Your task to perform on an android device: check google app version Image 0: 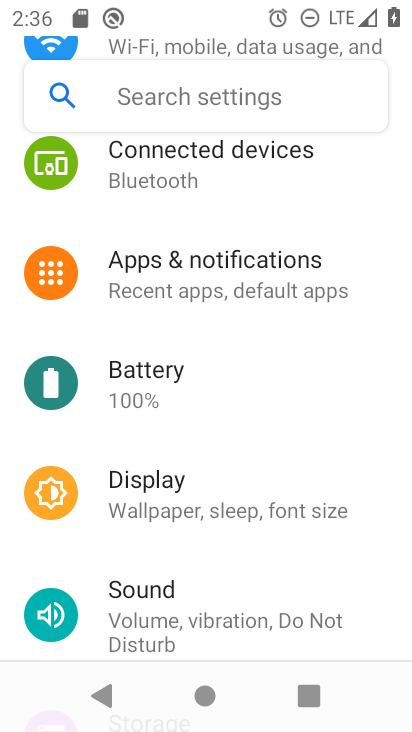
Step 0: press home button
Your task to perform on an android device: check google app version Image 1: 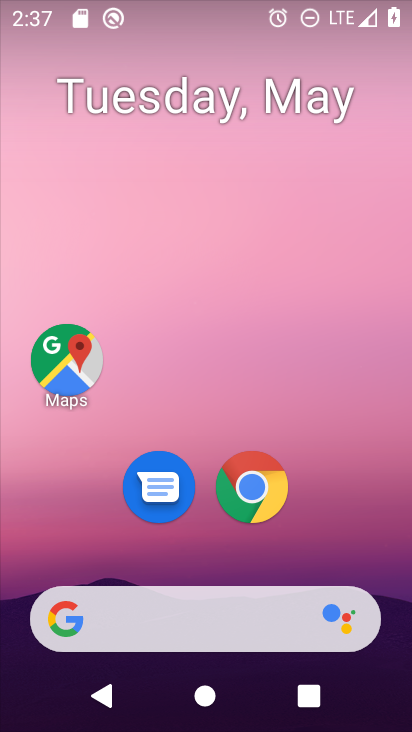
Step 1: drag from (81, 441) to (355, 55)
Your task to perform on an android device: check google app version Image 2: 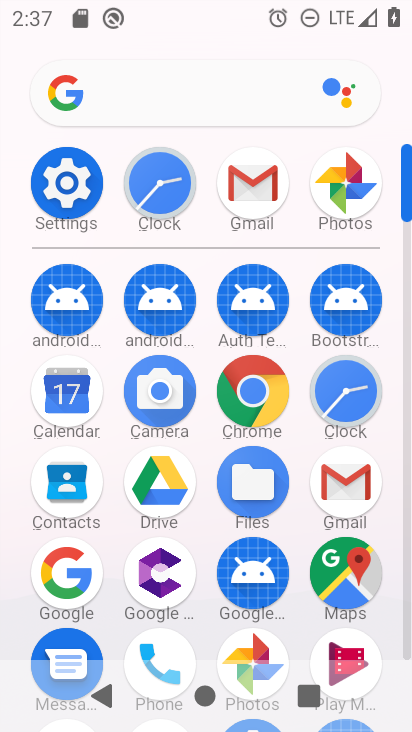
Step 2: click (257, 598)
Your task to perform on an android device: check google app version Image 3: 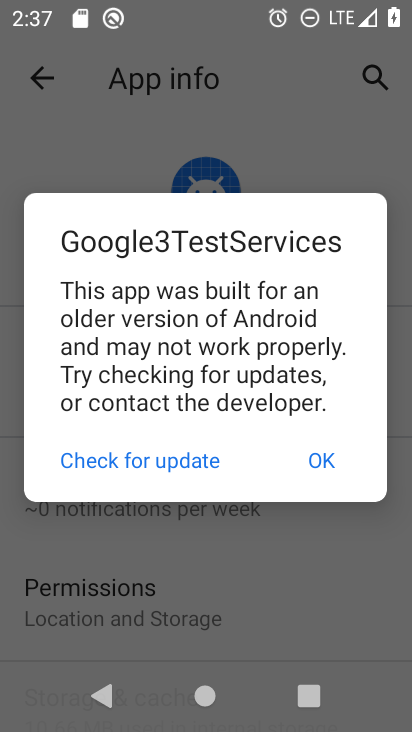
Step 3: click (304, 453)
Your task to perform on an android device: check google app version Image 4: 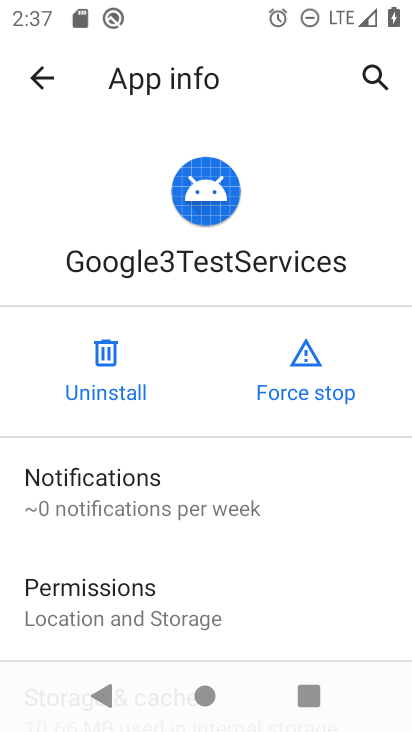
Step 4: drag from (159, 587) to (400, 44)
Your task to perform on an android device: check google app version Image 5: 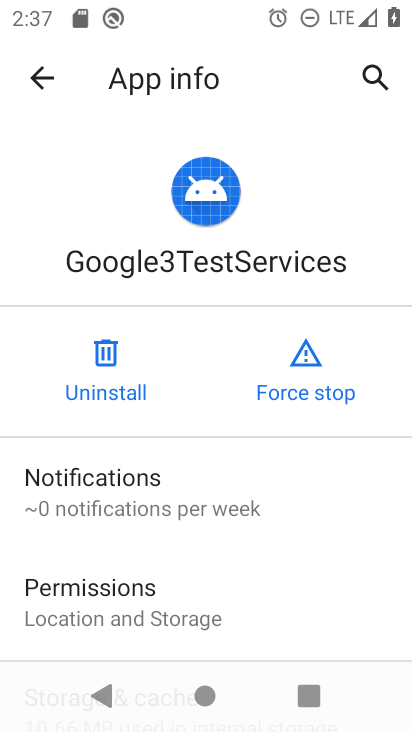
Step 5: drag from (108, 611) to (279, 202)
Your task to perform on an android device: check google app version Image 6: 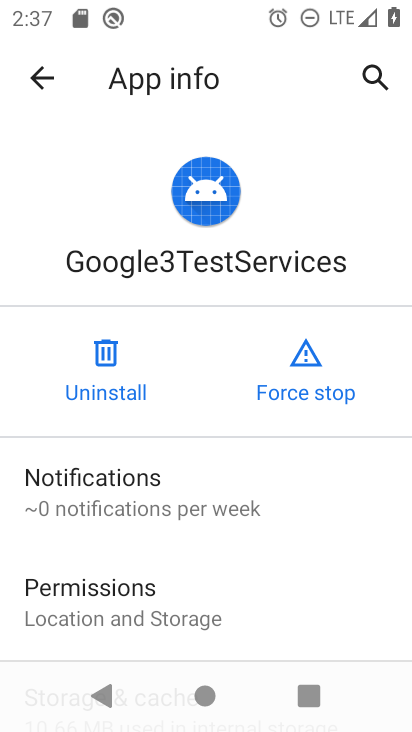
Step 6: drag from (242, 546) to (385, 41)
Your task to perform on an android device: check google app version Image 7: 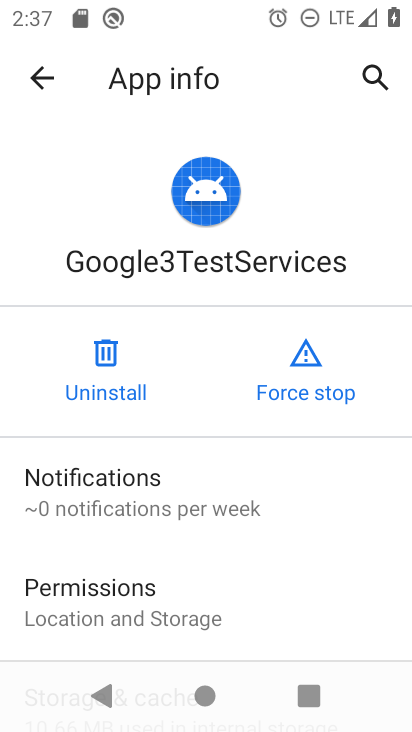
Step 7: drag from (47, 622) to (316, 104)
Your task to perform on an android device: check google app version Image 8: 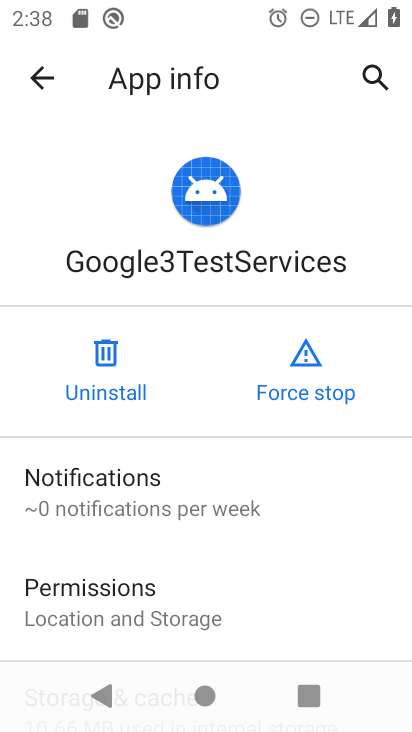
Step 8: drag from (8, 641) to (275, 31)
Your task to perform on an android device: check google app version Image 9: 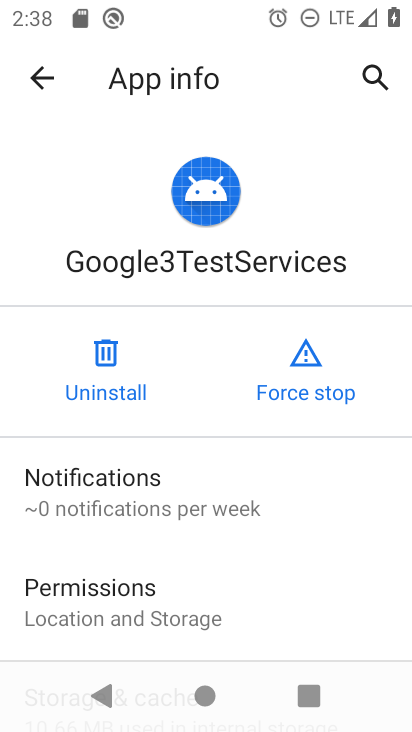
Step 9: drag from (21, 553) to (264, 120)
Your task to perform on an android device: check google app version Image 10: 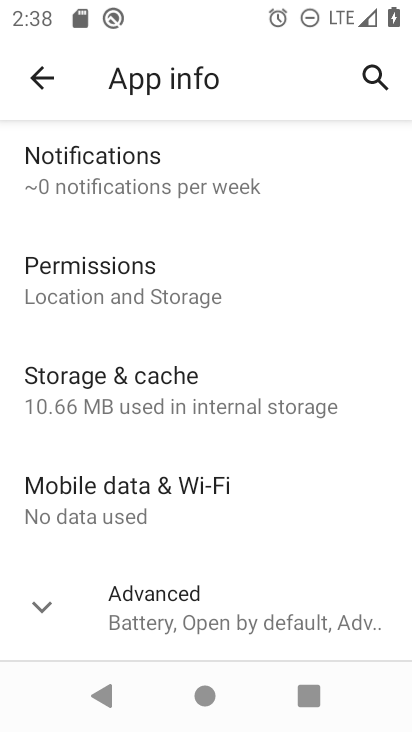
Step 10: drag from (17, 643) to (311, 211)
Your task to perform on an android device: check google app version Image 11: 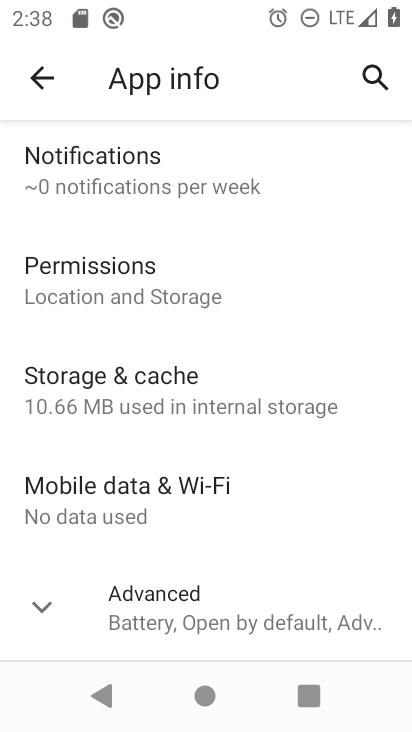
Step 11: click (224, 603)
Your task to perform on an android device: check google app version Image 12: 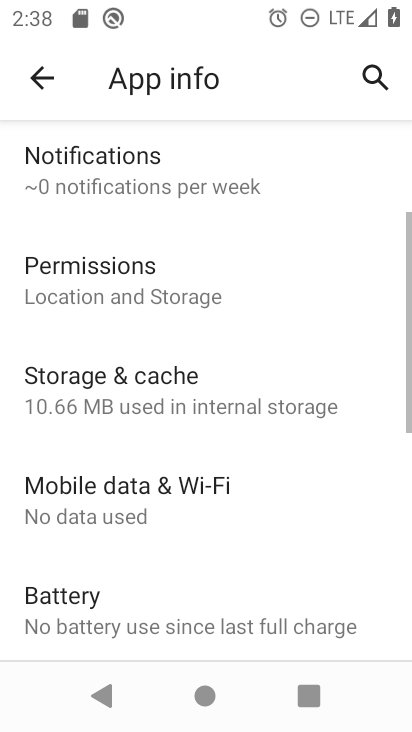
Step 12: drag from (62, 521) to (294, 159)
Your task to perform on an android device: check google app version Image 13: 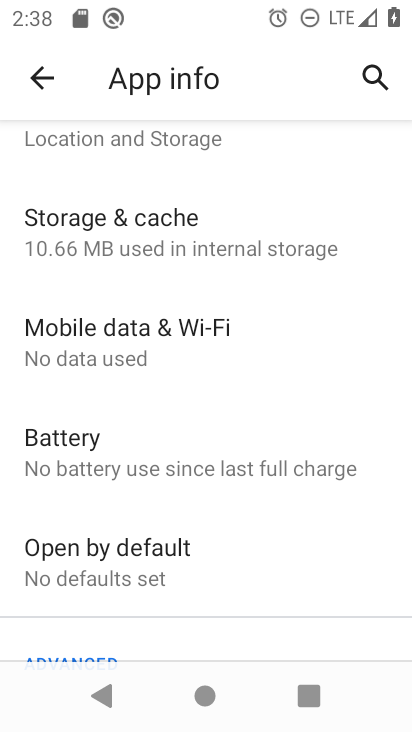
Step 13: drag from (18, 495) to (279, 54)
Your task to perform on an android device: check google app version Image 14: 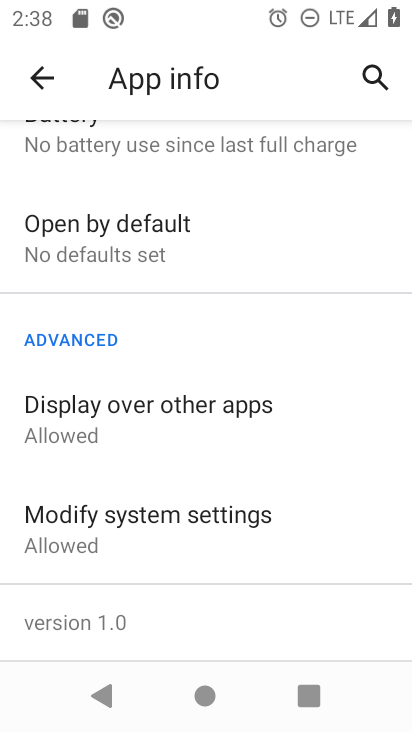
Step 14: click (89, 634)
Your task to perform on an android device: check google app version Image 15: 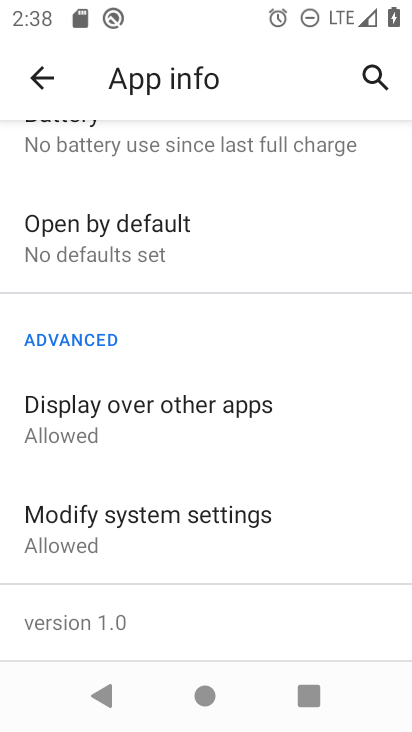
Step 15: task complete